Your task to perform on an android device: empty trash in the gmail app Image 0: 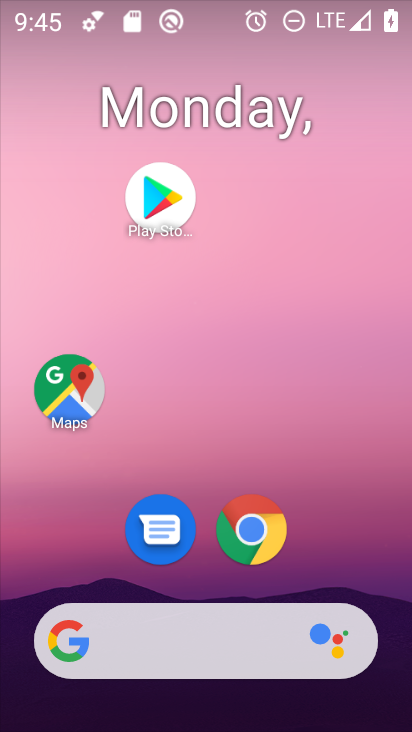
Step 0: drag from (335, 534) to (198, 79)
Your task to perform on an android device: empty trash in the gmail app Image 1: 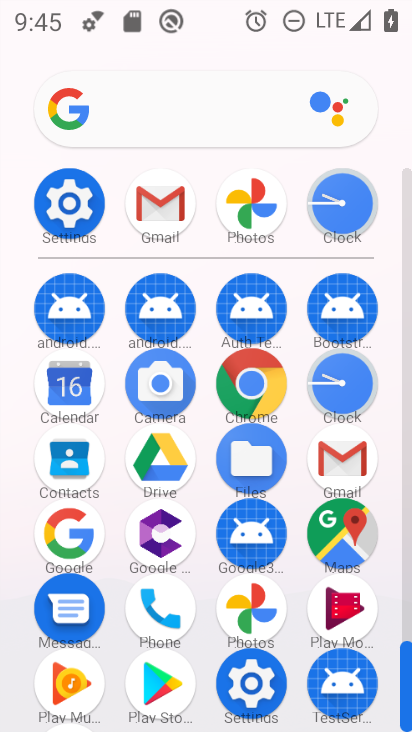
Step 1: click (339, 446)
Your task to perform on an android device: empty trash in the gmail app Image 2: 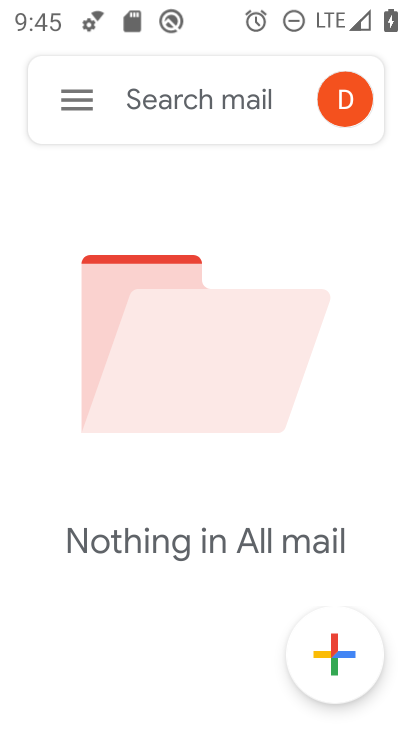
Step 2: click (73, 98)
Your task to perform on an android device: empty trash in the gmail app Image 3: 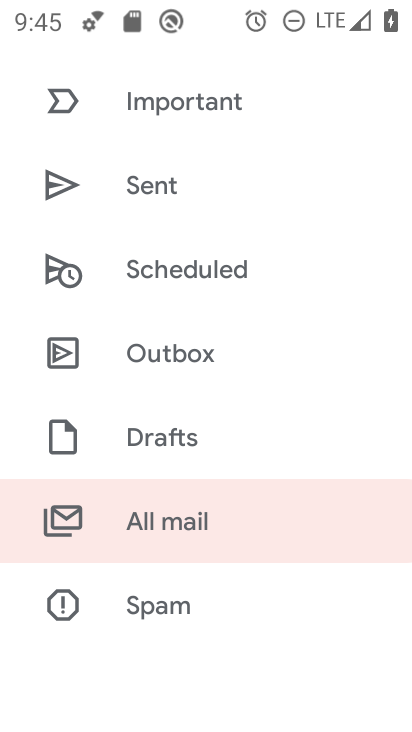
Step 3: drag from (194, 553) to (158, 296)
Your task to perform on an android device: empty trash in the gmail app Image 4: 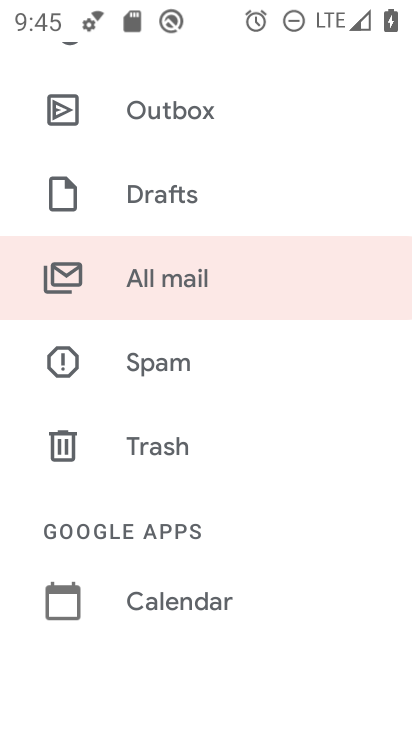
Step 4: click (149, 447)
Your task to perform on an android device: empty trash in the gmail app Image 5: 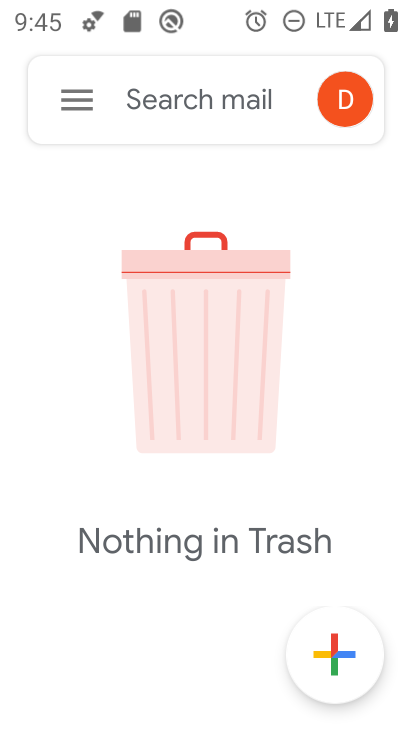
Step 5: task complete